Your task to perform on an android device: Open Google Chrome and click the shortcut for Amazon.com Image 0: 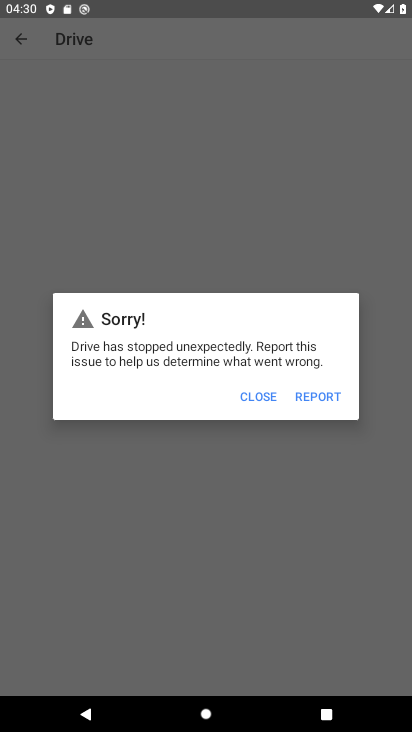
Step 0: press back button
Your task to perform on an android device: Open Google Chrome and click the shortcut for Amazon.com Image 1: 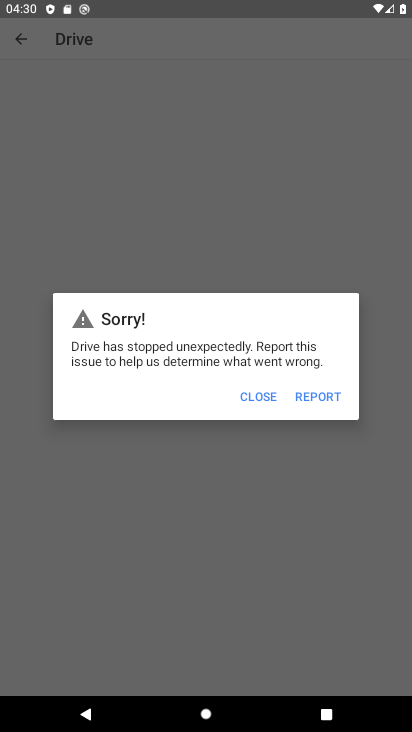
Step 1: press home button
Your task to perform on an android device: Open Google Chrome and click the shortcut for Amazon.com Image 2: 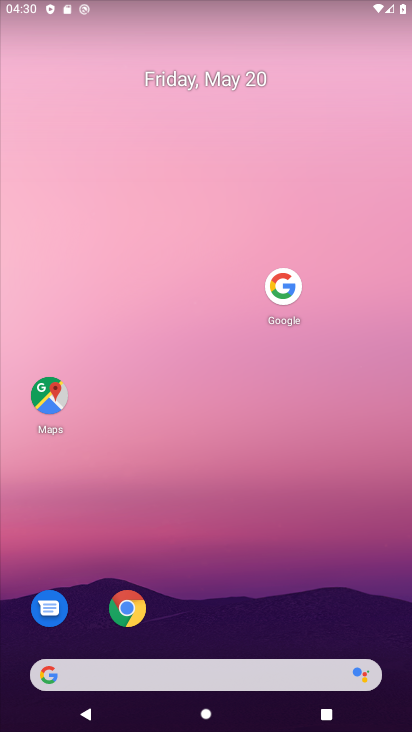
Step 2: click (121, 590)
Your task to perform on an android device: Open Google Chrome and click the shortcut for Amazon.com Image 3: 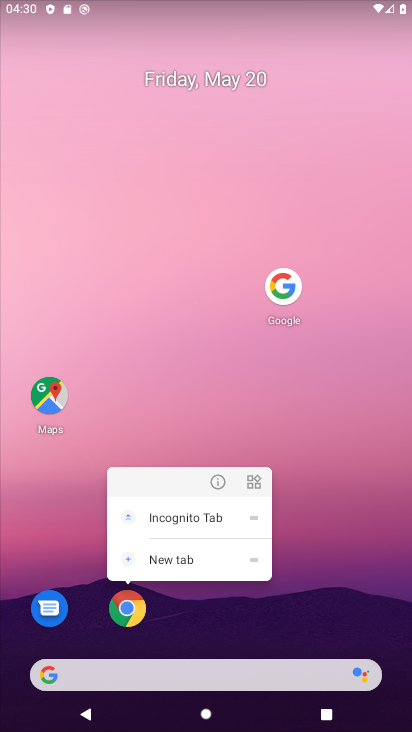
Step 3: click (113, 609)
Your task to perform on an android device: Open Google Chrome and click the shortcut for Amazon.com Image 4: 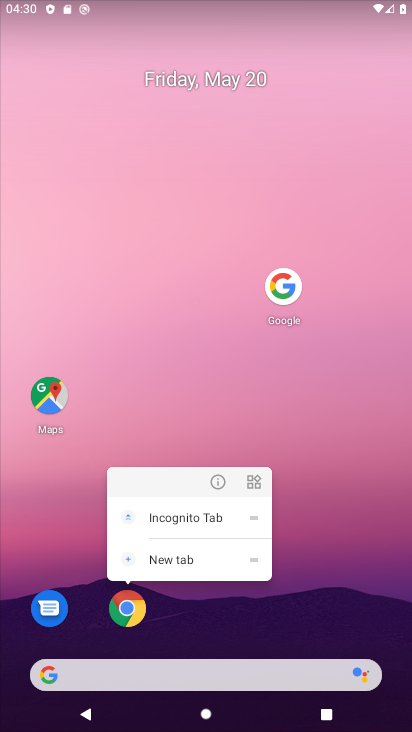
Step 4: click (124, 602)
Your task to perform on an android device: Open Google Chrome and click the shortcut for Amazon.com Image 5: 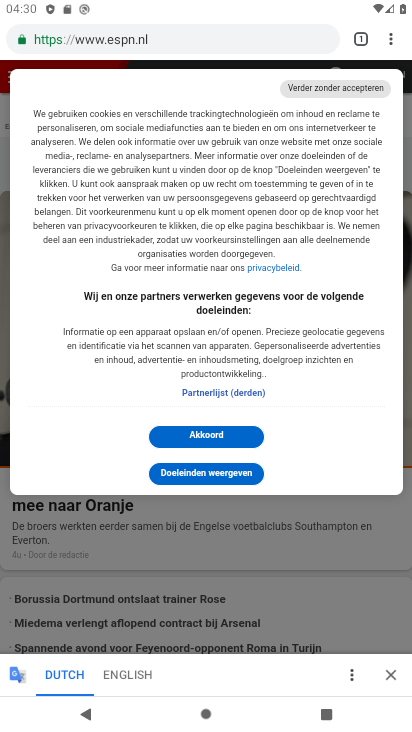
Step 5: click (146, 579)
Your task to perform on an android device: Open Google Chrome and click the shortcut for Amazon.com Image 6: 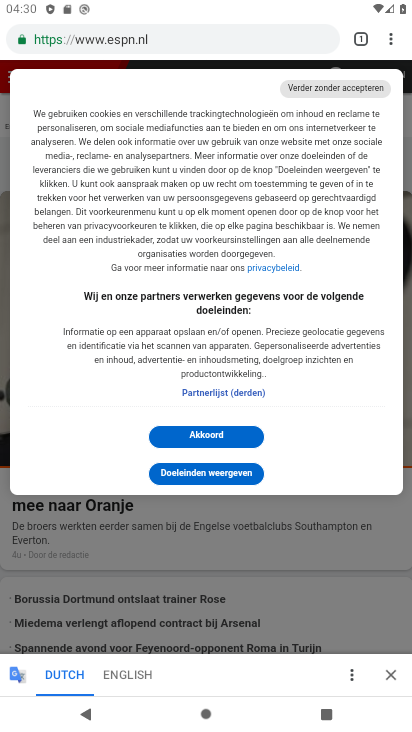
Step 6: click (199, 437)
Your task to perform on an android device: Open Google Chrome and click the shortcut for Amazon.com Image 7: 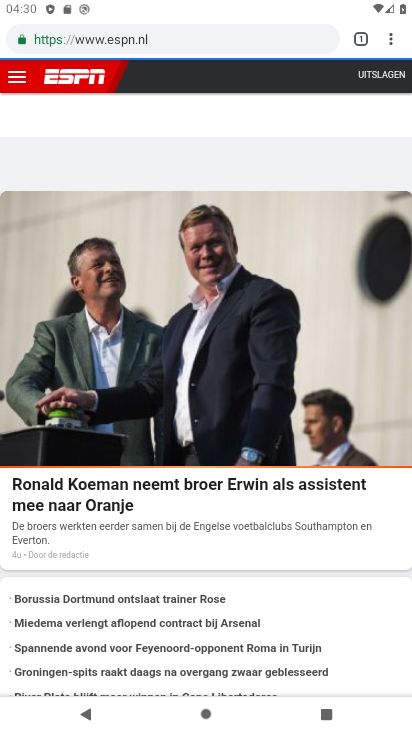
Step 7: click (347, 35)
Your task to perform on an android device: Open Google Chrome and click the shortcut for Amazon.com Image 8: 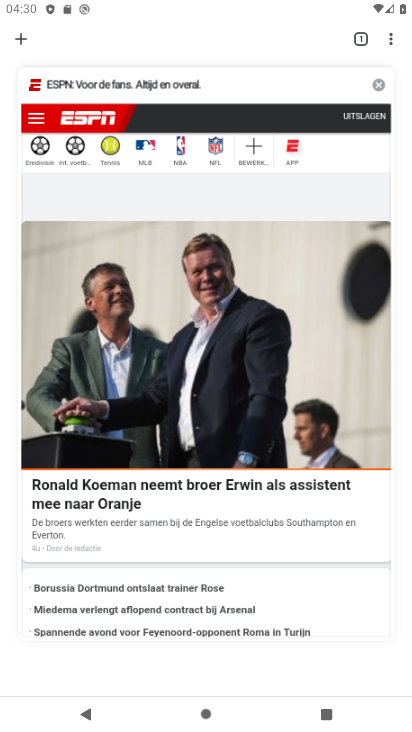
Step 8: click (10, 39)
Your task to perform on an android device: Open Google Chrome and click the shortcut for Amazon.com Image 9: 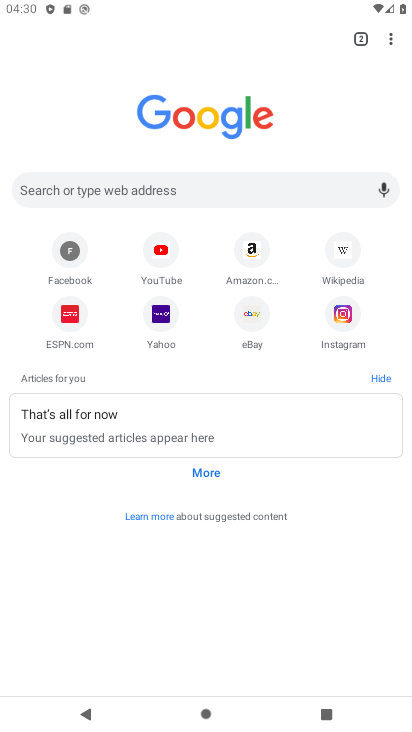
Step 9: click (254, 255)
Your task to perform on an android device: Open Google Chrome and click the shortcut for Amazon.com Image 10: 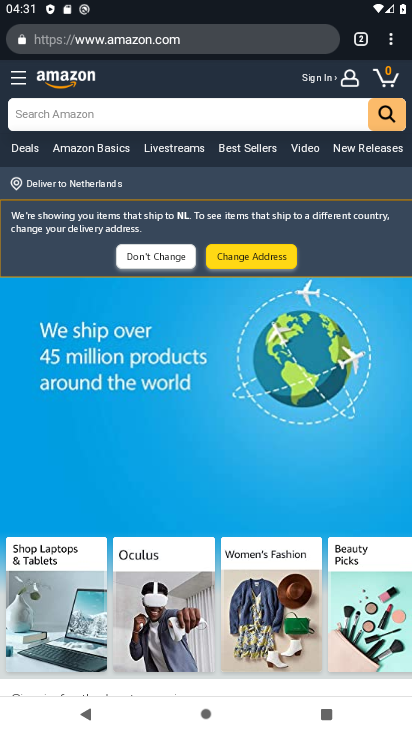
Step 10: task complete